Your task to perform on an android device: Set the phone to "Do not disturb". Image 0: 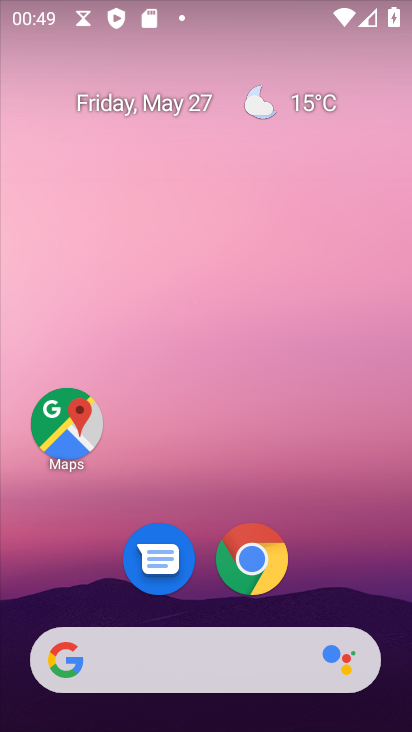
Step 0: drag from (342, 494) to (192, 51)
Your task to perform on an android device: Set the phone to "Do not disturb". Image 1: 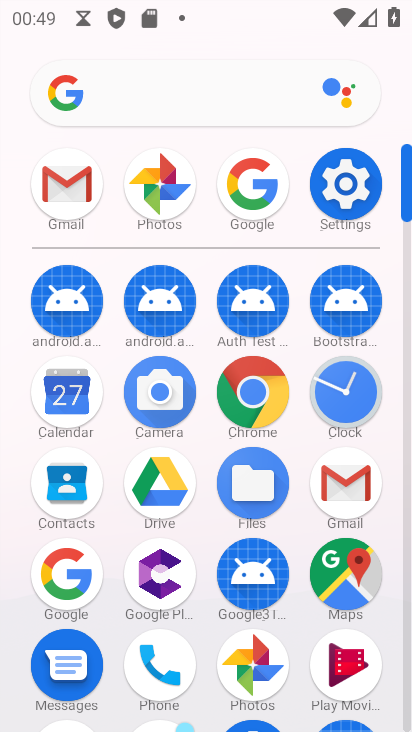
Step 1: click (345, 206)
Your task to perform on an android device: Set the phone to "Do not disturb". Image 2: 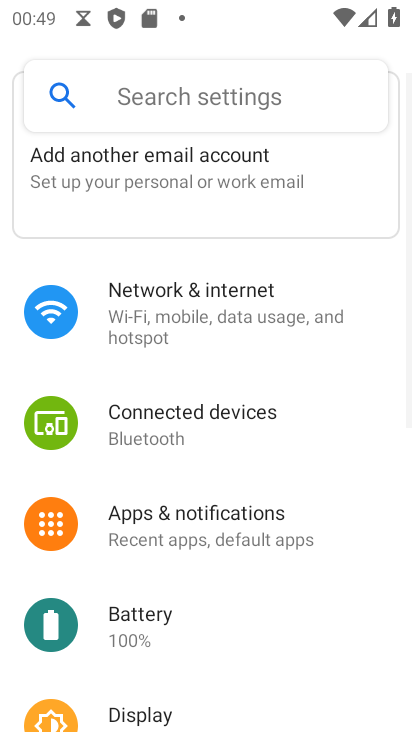
Step 2: drag from (236, 603) to (196, 88)
Your task to perform on an android device: Set the phone to "Do not disturb". Image 3: 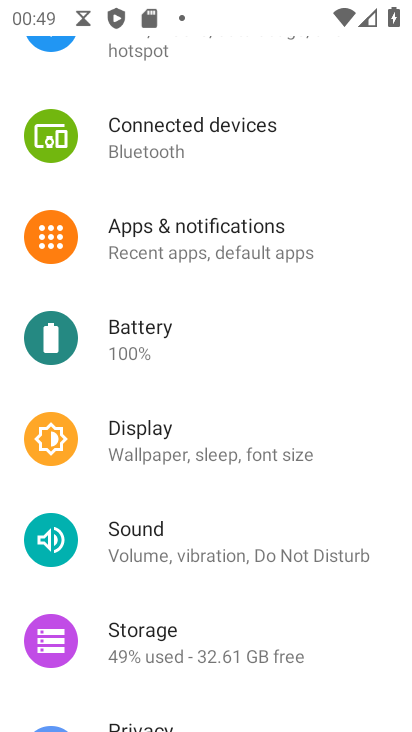
Step 3: click (184, 538)
Your task to perform on an android device: Set the phone to "Do not disturb". Image 4: 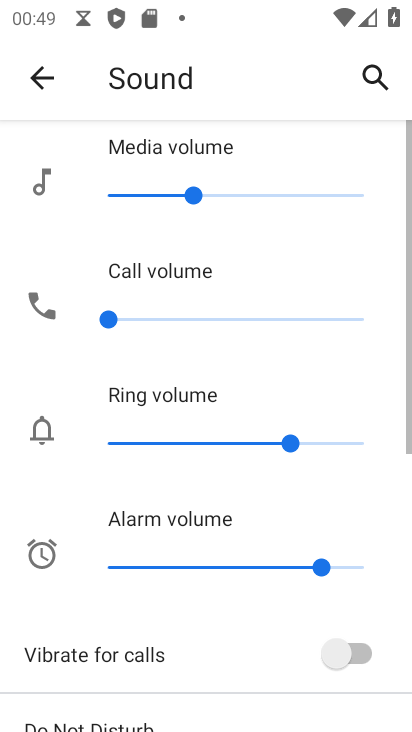
Step 4: drag from (236, 656) to (205, 180)
Your task to perform on an android device: Set the phone to "Do not disturb". Image 5: 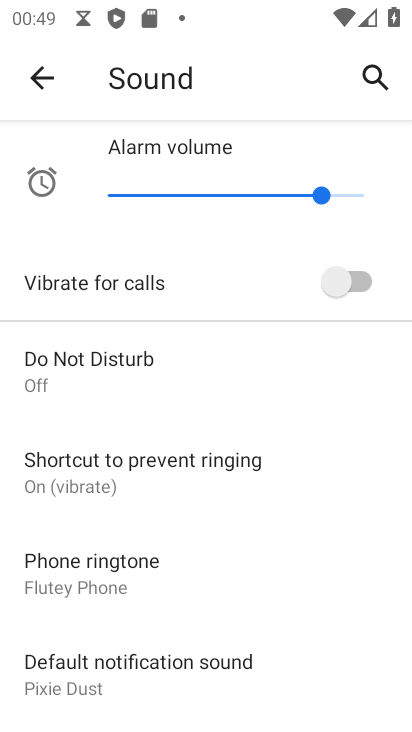
Step 5: click (151, 426)
Your task to perform on an android device: Set the phone to "Do not disturb". Image 6: 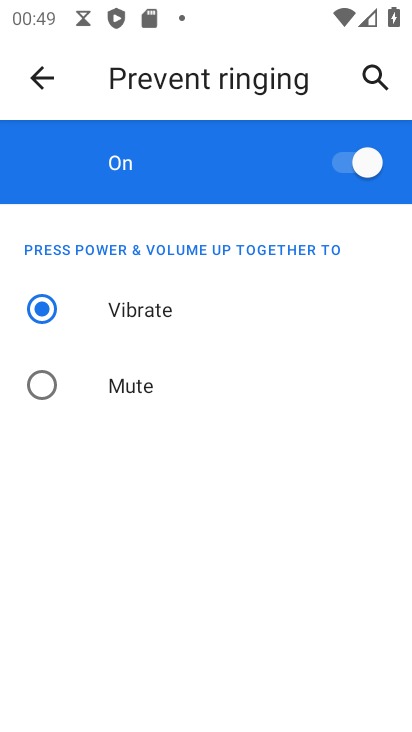
Step 6: press back button
Your task to perform on an android device: Set the phone to "Do not disturb". Image 7: 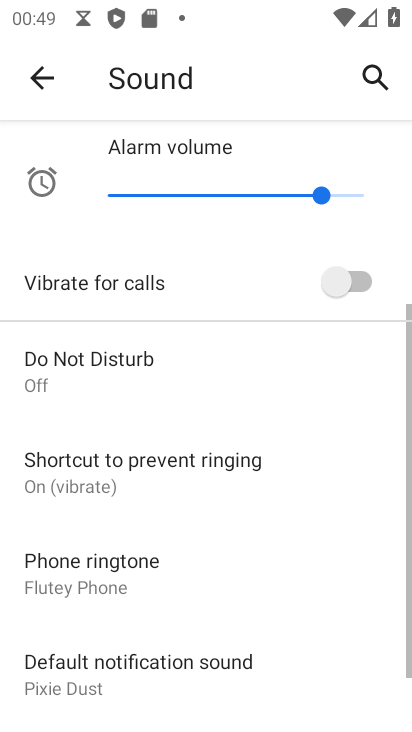
Step 7: click (145, 383)
Your task to perform on an android device: Set the phone to "Do not disturb". Image 8: 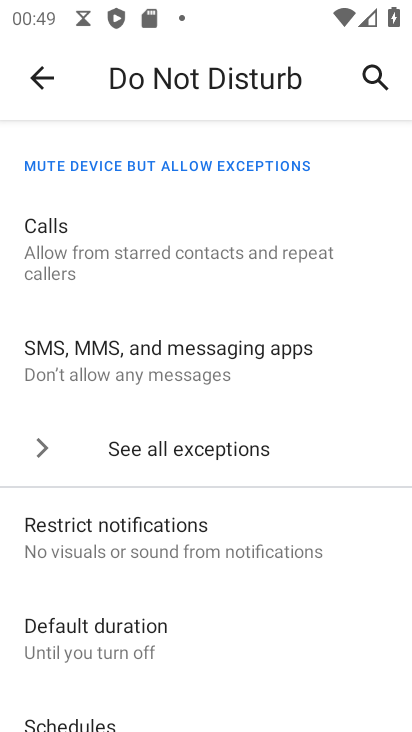
Step 8: drag from (208, 627) to (230, 5)
Your task to perform on an android device: Set the phone to "Do not disturb". Image 9: 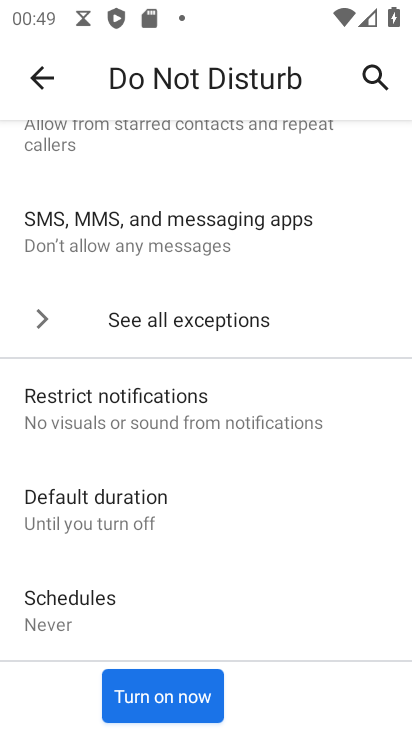
Step 9: click (169, 683)
Your task to perform on an android device: Set the phone to "Do not disturb". Image 10: 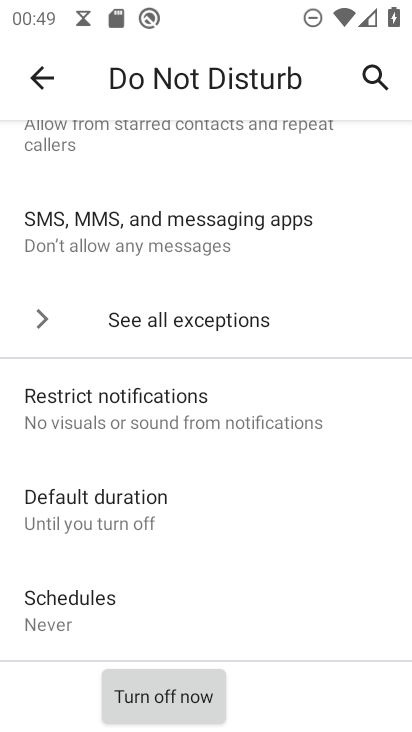
Step 10: task complete